Your task to perform on an android device: What's on my calendar today? Image 0: 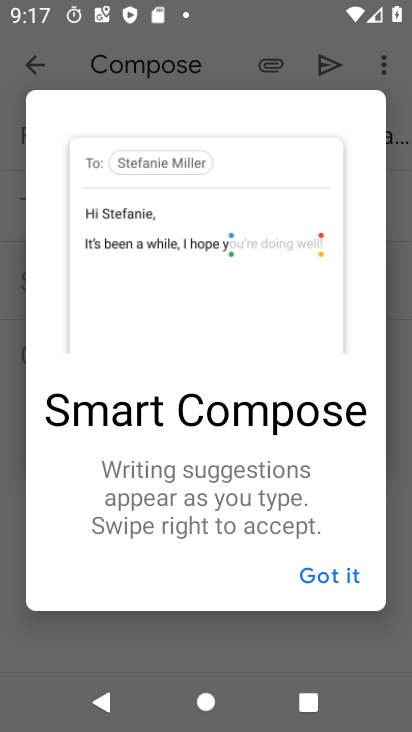
Step 0: press home button
Your task to perform on an android device: What's on my calendar today? Image 1: 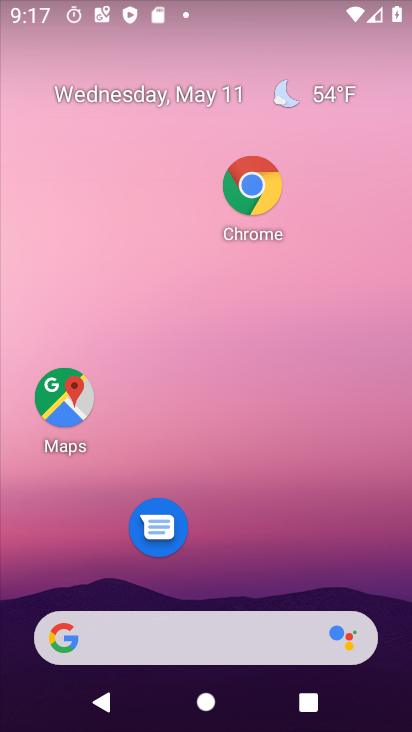
Step 1: drag from (240, 535) to (282, 3)
Your task to perform on an android device: What's on my calendar today? Image 2: 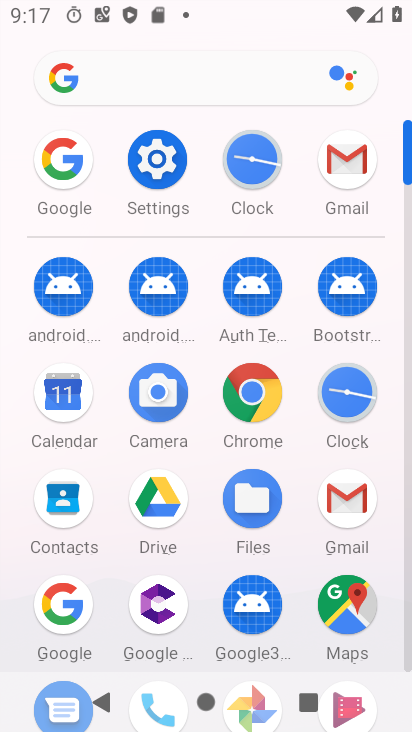
Step 2: click (62, 389)
Your task to perform on an android device: What's on my calendar today? Image 3: 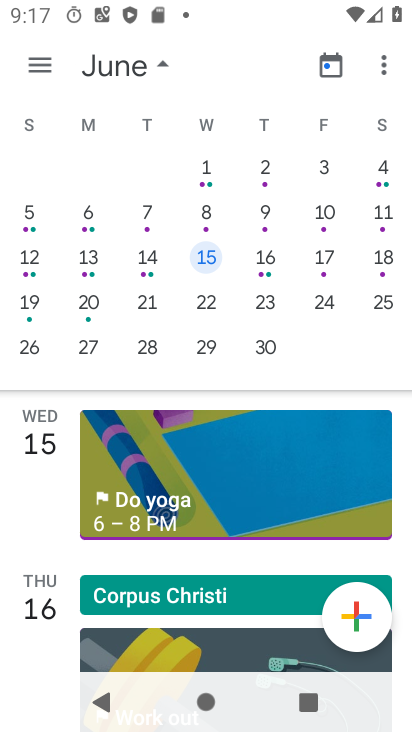
Step 3: drag from (59, 375) to (377, 335)
Your task to perform on an android device: What's on my calendar today? Image 4: 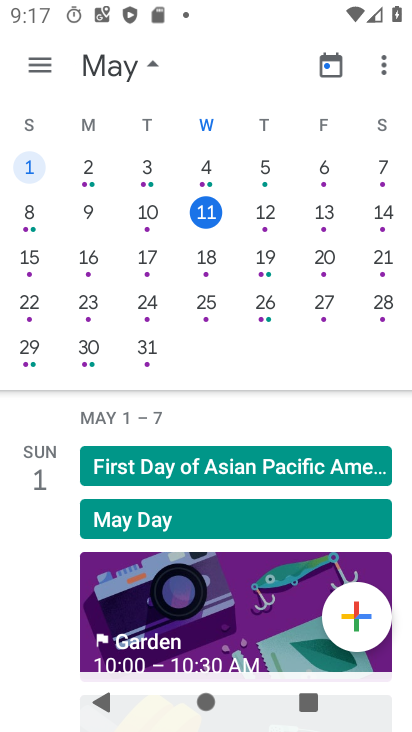
Step 4: click (208, 210)
Your task to perform on an android device: What's on my calendar today? Image 5: 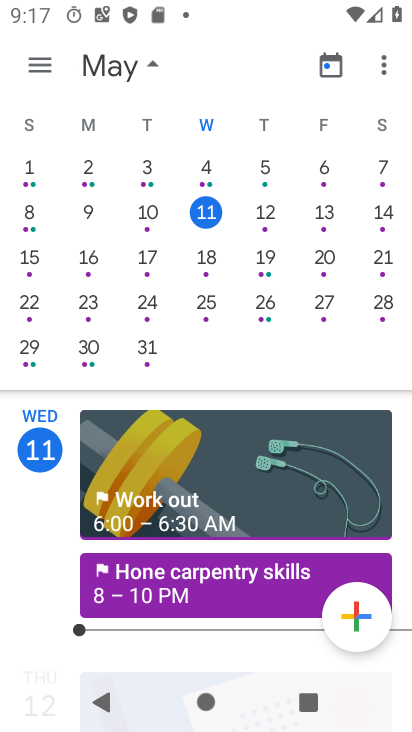
Step 5: task complete